Your task to perform on an android device: Open Youtube and go to "Your channel" Image 0: 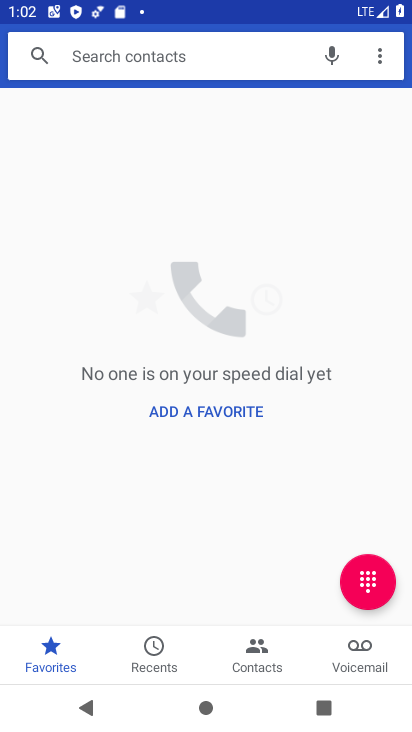
Step 0: press home button
Your task to perform on an android device: Open Youtube and go to "Your channel" Image 1: 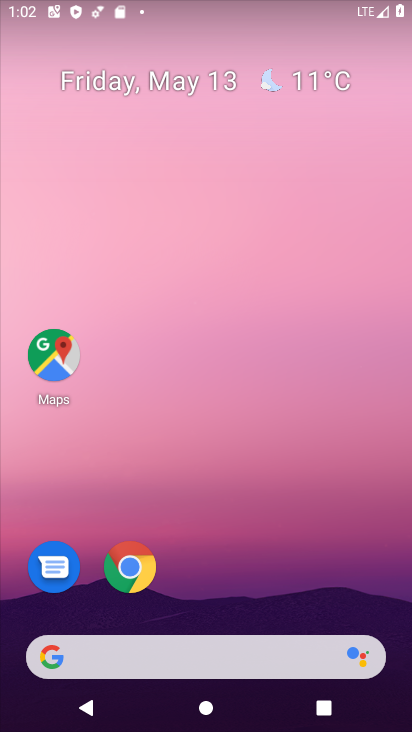
Step 1: drag from (223, 619) to (293, 164)
Your task to perform on an android device: Open Youtube and go to "Your channel" Image 2: 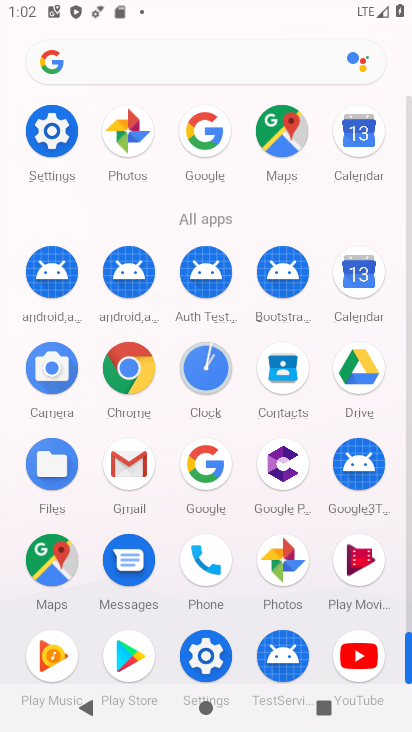
Step 2: drag from (240, 597) to (289, 375)
Your task to perform on an android device: Open Youtube and go to "Your channel" Image 3: 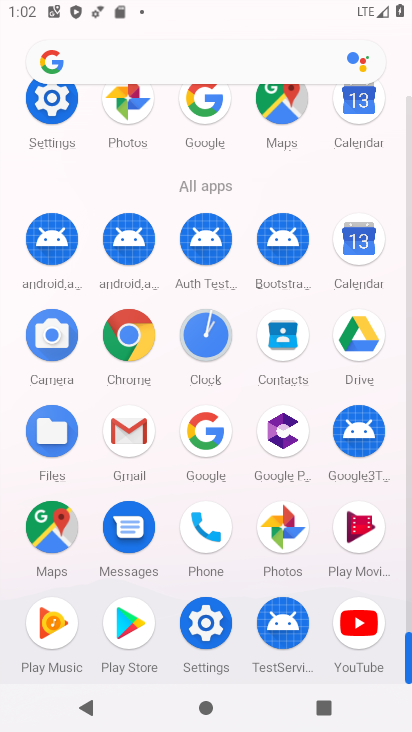
Step 3: click (363, 626)
Your task to perform on an android device: Open Youtube and go to "Your channel" Image 4: 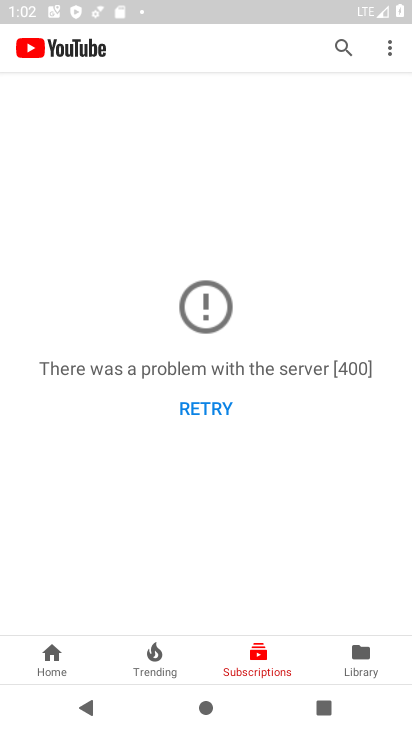
Step 4: click (375, 647)
Your task to perform on an android device: Open Youtube and go to "Your channel" Image 5: 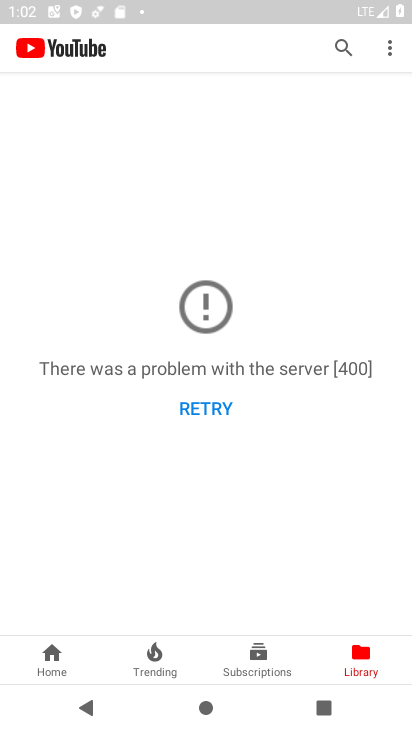
Step 5: task complete